Your task to perform on an android device: Search for Mexican restaurants on Maps Image 0: 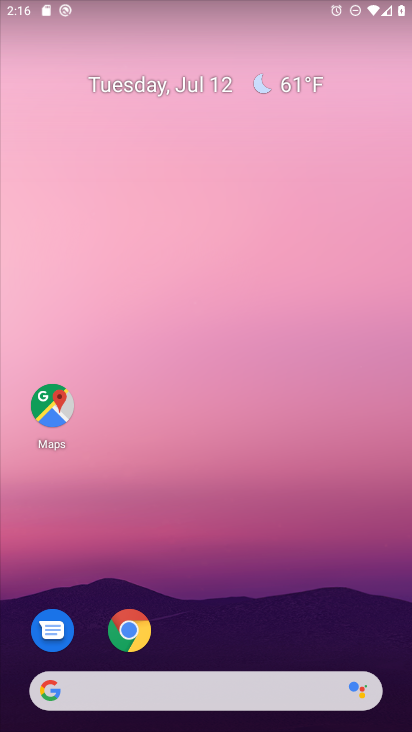
Step 0: click (46, 414)
Your task to perform on an android device: Search for Mexican restaurants on Maps Image 1: 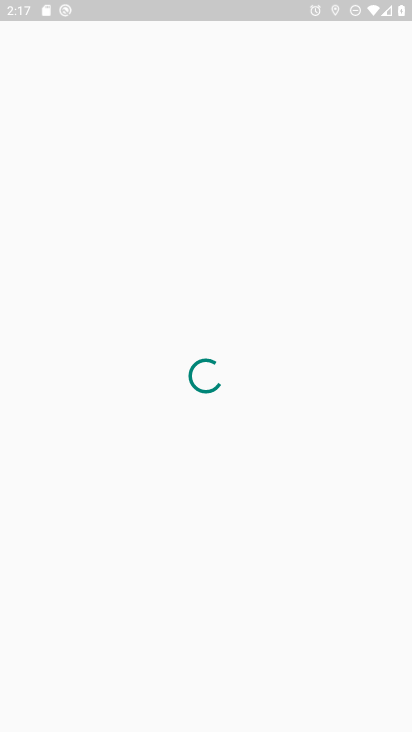
Step 1: click (332, 45)
Your task to perform on an android device: Search for Mexican restaurants on Maps Image 2: 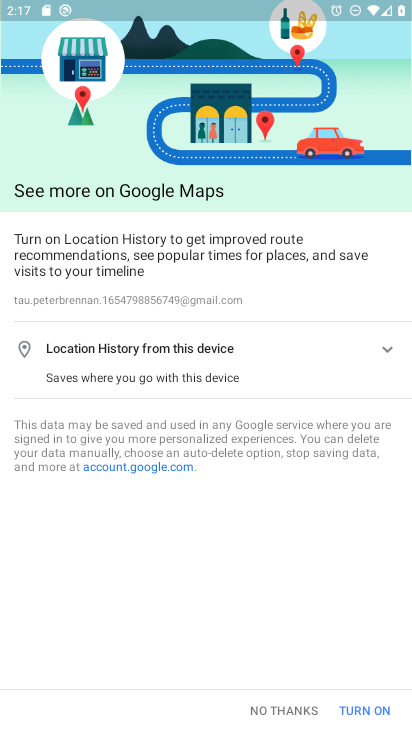
Step 2: click (348, 701)
Your task to perform on an android device: Search for Mexican restaurants on Maps Image 3: 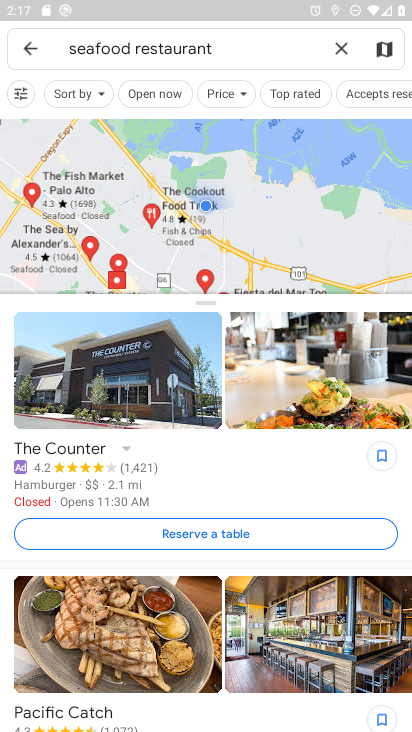
Step 3: click (342, 44)
Your task to perform on an android device: Search for Mexican restaurants on Maps Image 4: 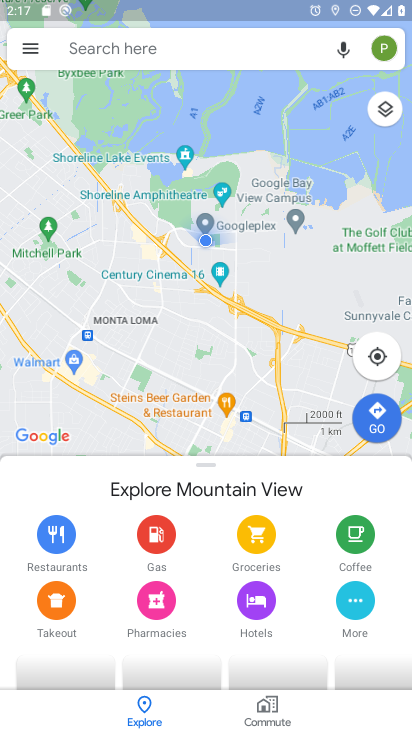
Step 4: click (203, 33)
Your task to perform on an android device: Search for Mexican restaurants on Maps Image 5: 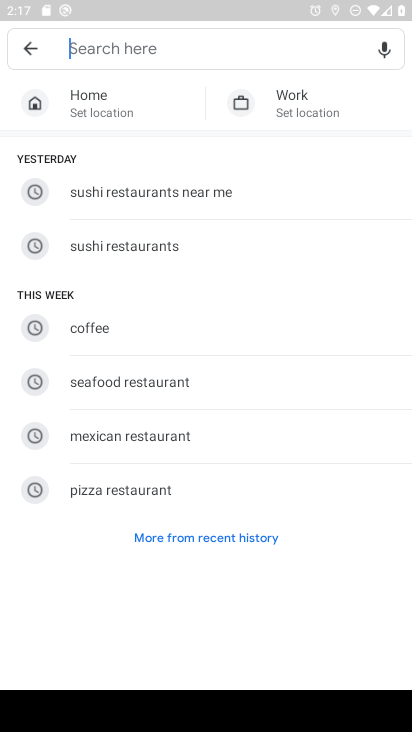
Step 5: type "Mexican restaurants"
Your task to perform on an android device: Search for Mexican restaurants on Maps Image 6: 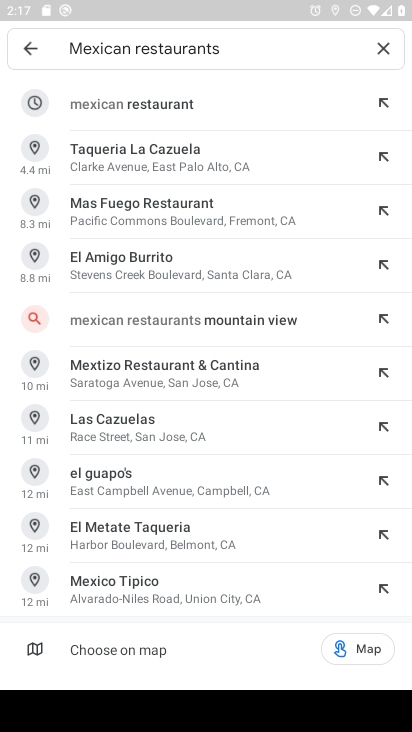
Step 6: click (146, 114)
Your task to perform on an android device: Search for Mexican restaurants on Maps Image 7: 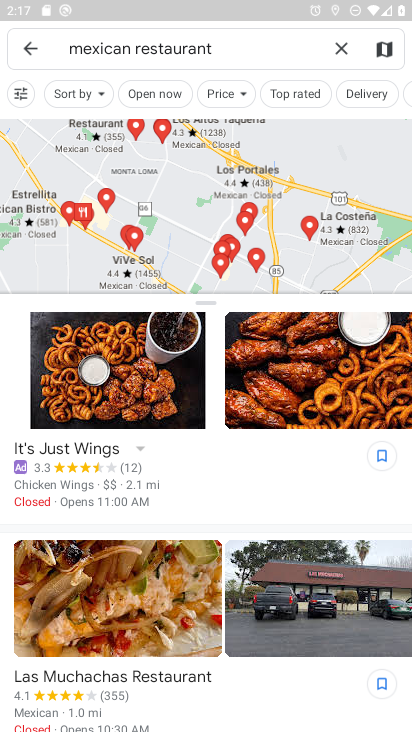
Step 7: task complete